Your task to perform on an android device: turn on improve location accuracy Image 0: 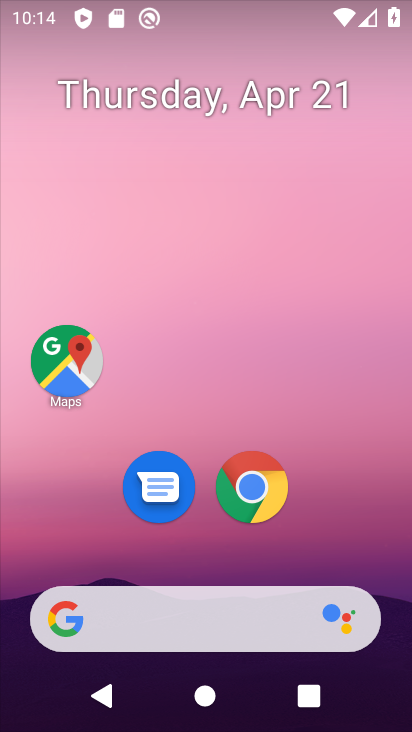
Step 0: drag from (383, 532) to (374, 218)
Your task to perform on an android device: turn on improve location accuracy Image 1: 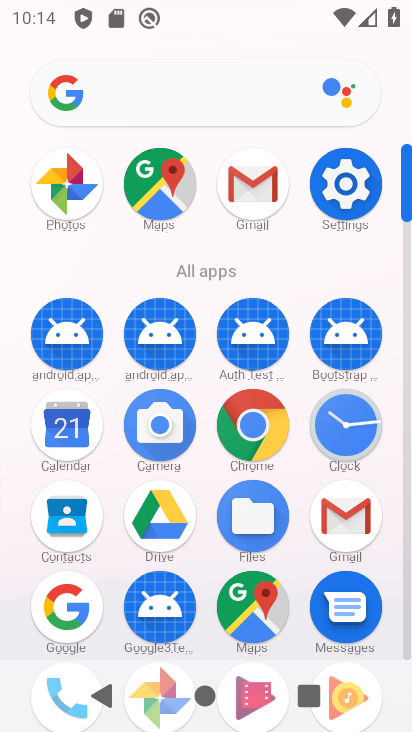
Step 1: click (360, 189)
Your task to perform on an android device: turn on improve location accuracy Image 2: 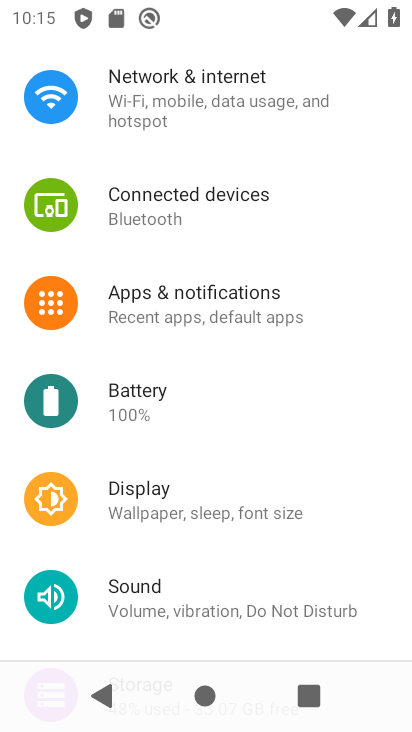
Step 2: drag from (365, 571) to (352, 249)
Your task to perform on an android device: turn on improve location accuracy Image 3: 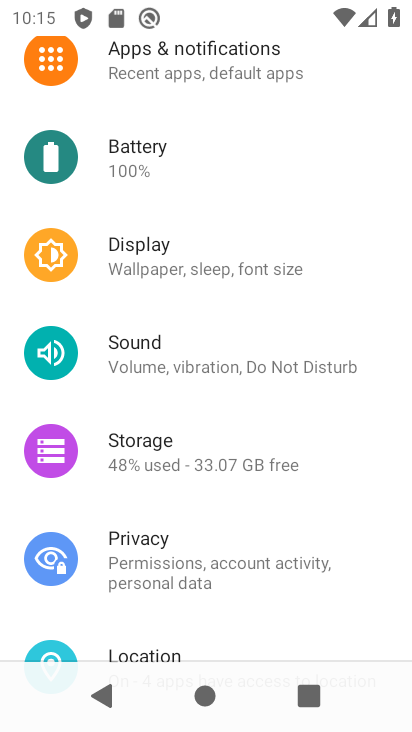
Step 3: drag from (347, 556) to (343, 258)
Your task to perform on an android device: turn on improve location accuracy Image 4: 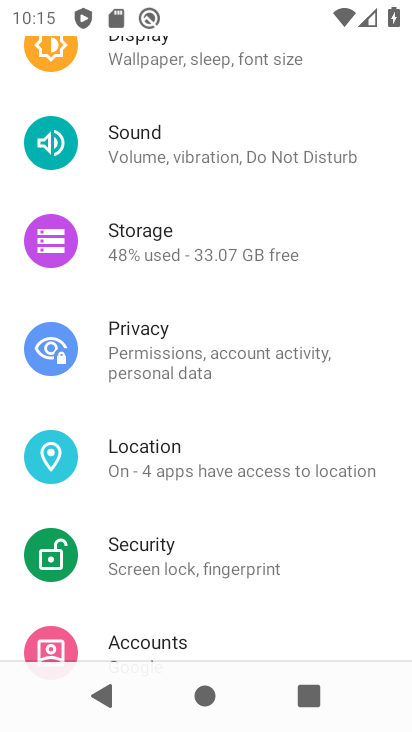
Step 4: click (226, 471)
Your task to perform on an android device: turn on improve location accuracy Image 5: 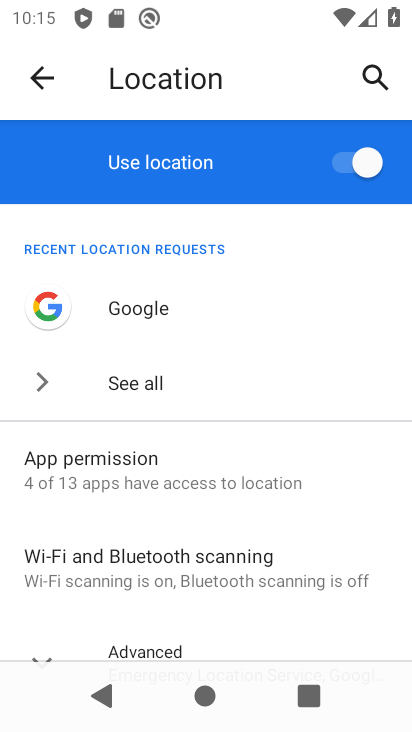
Step 5: drag from (297, 610) to (338, 336)
Your task to perform on an android device: turn on improve location accuracy Image 6: 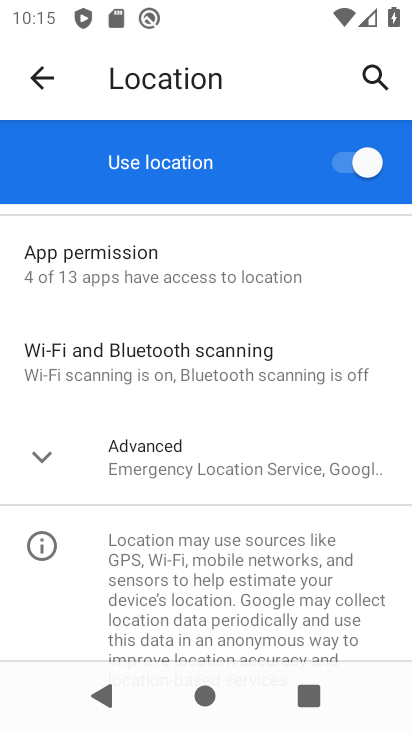
Step 6: click (275, 470)
Your task to perform on an android device: turn on improve location accuracy Image 7: 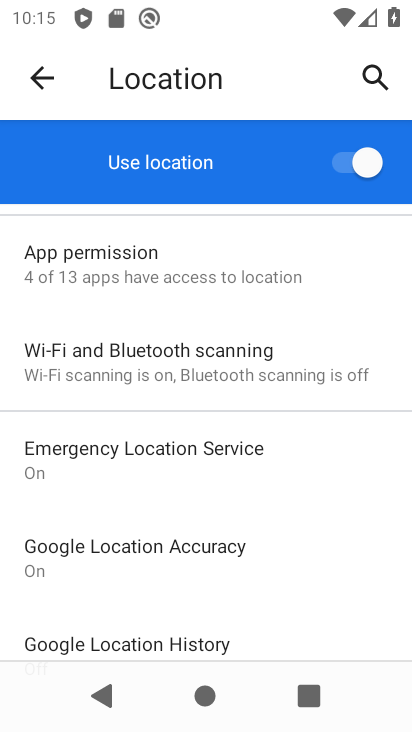
Step 7: click (203, 545)
Your task to perform on an android device: turn on improve location accuracy Image 8: 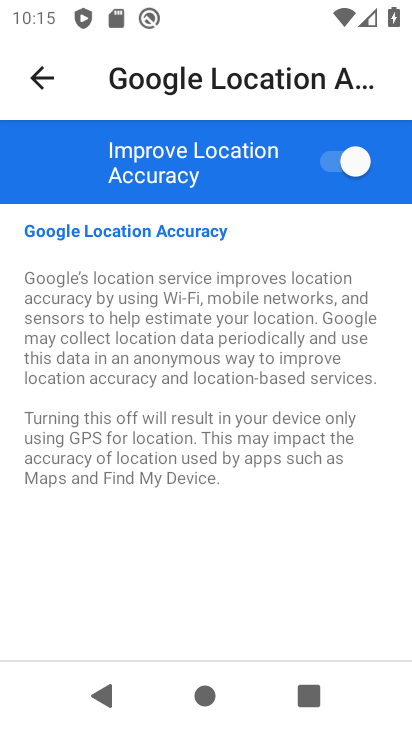
Step 8: task complete